Your task to perform on an android device: Look up "custom art" on Etsy Image 0: 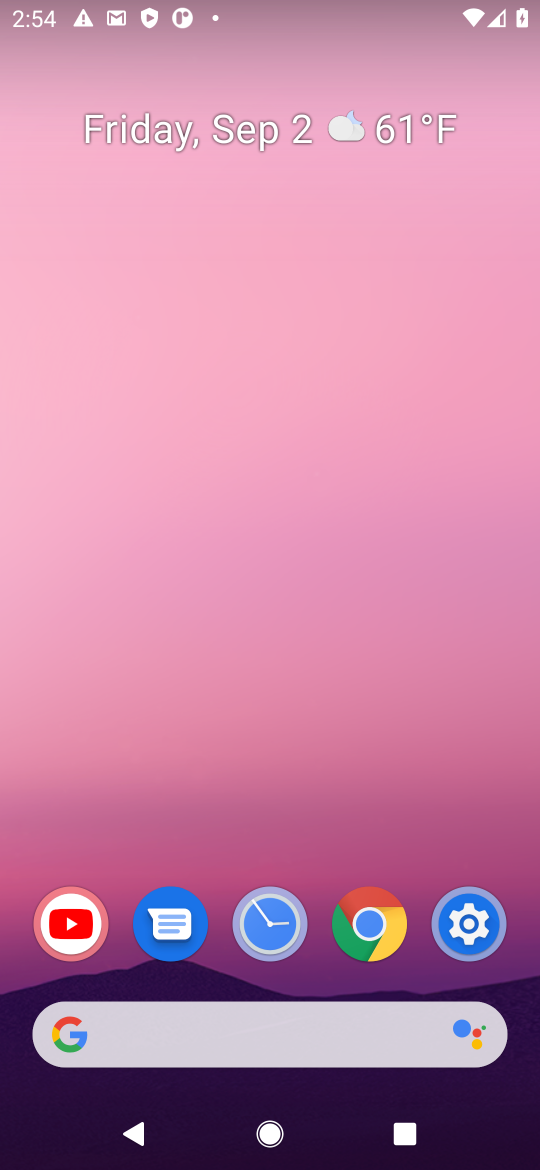
Step 0: press home button
Your task to perform on an android device: Look up "custom art" on Etsy Image 1: 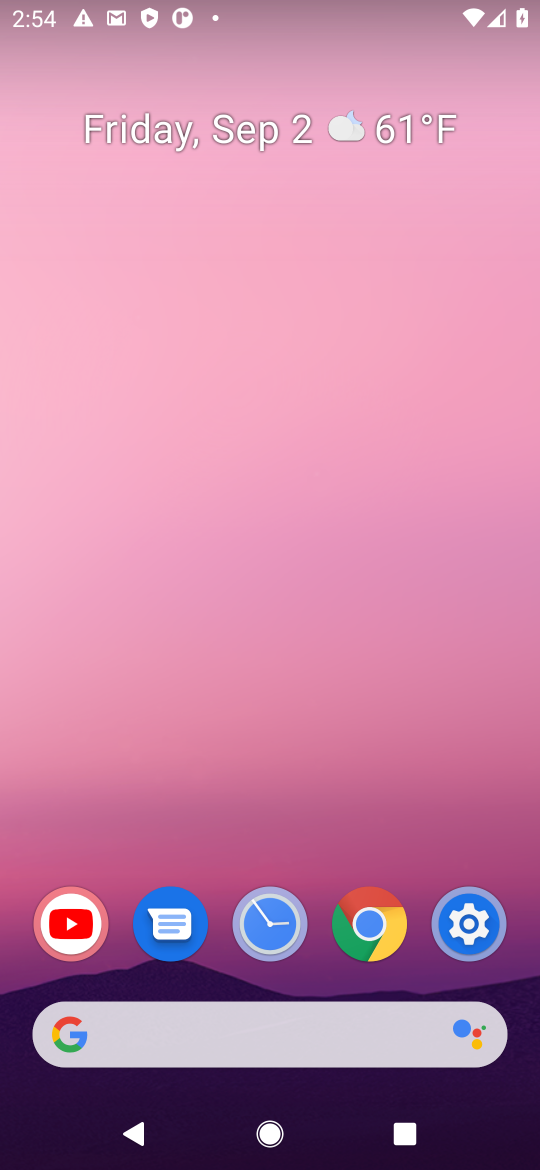
Step 1: click (340, 1042)
Your task to perform on an android device: Look up "custom art" on Etsy Image 2: 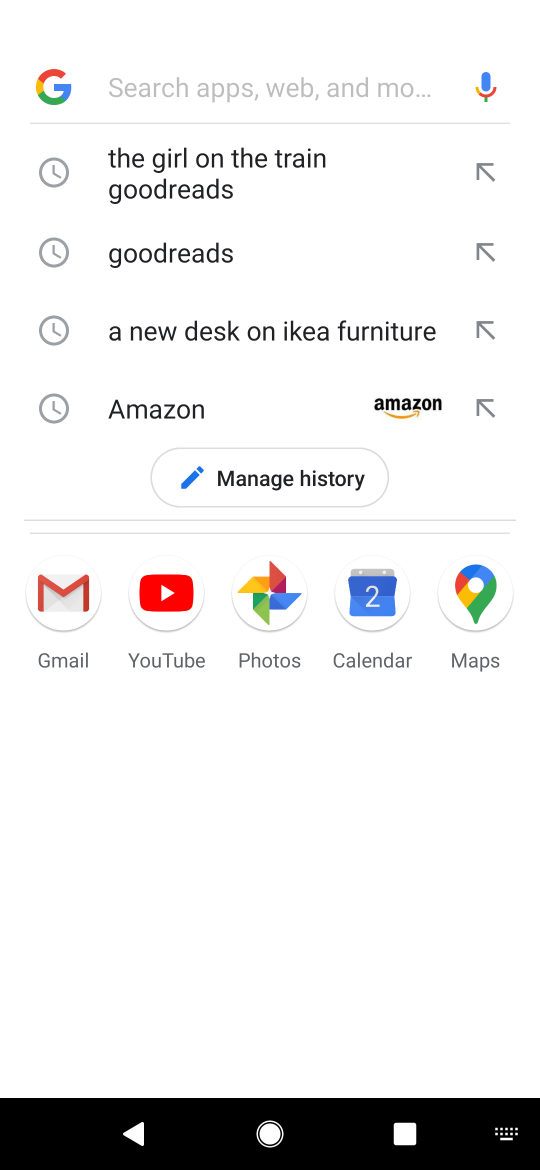
Step 2: press enter
Your task to perform on an android device: Look up "custom art" on Etsy Image 3: 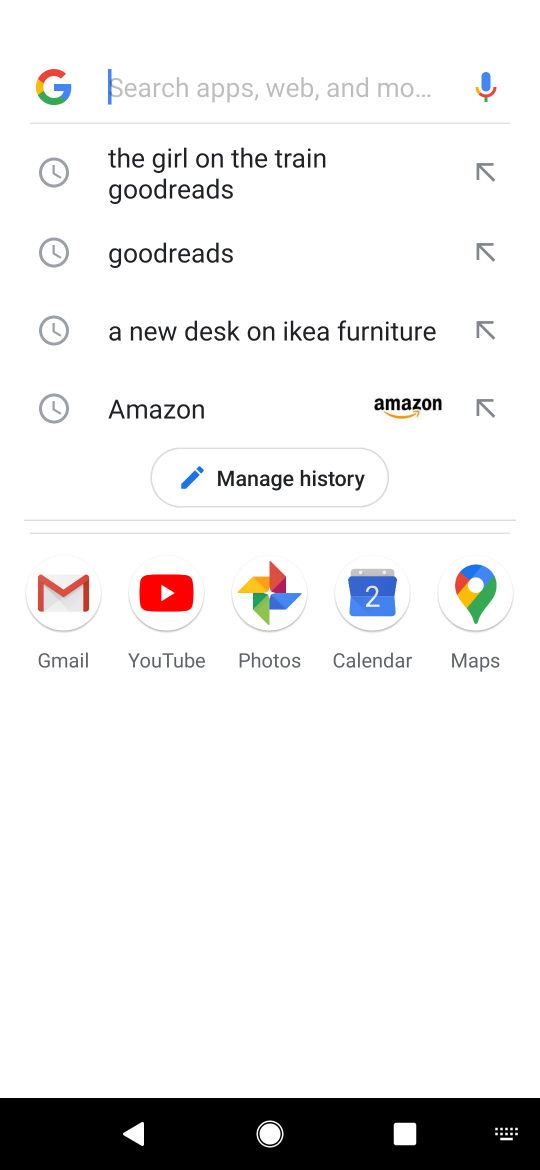
Step 3: type "etsy"
Your task to perform on an android device: Look up "custom art" on Etsy Image 4: 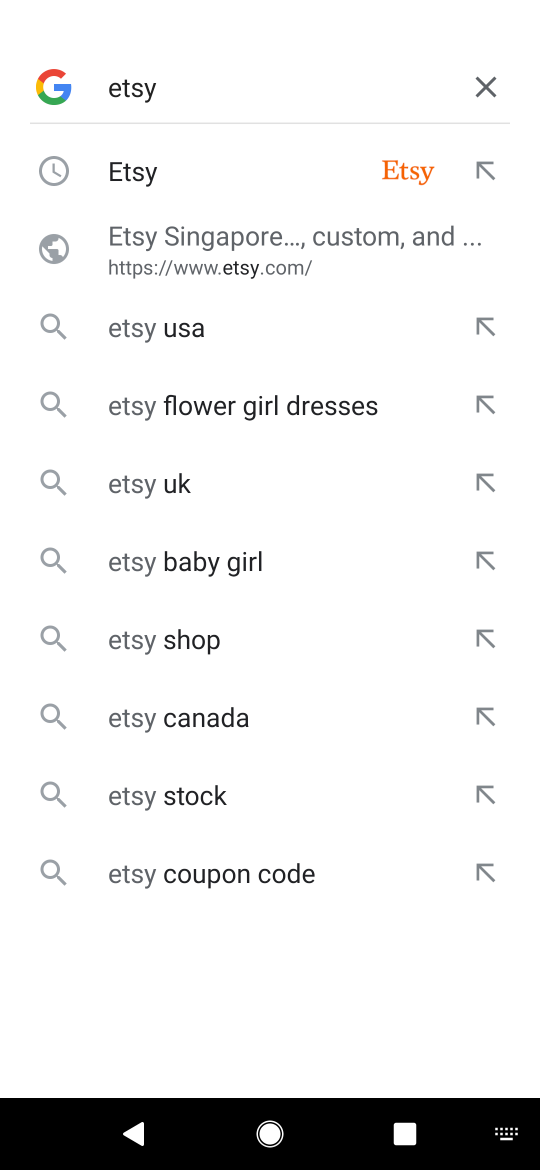
Step 4: click (216, 179)
Your task to perform on an android device: Look up "custom art" on Etsy Image 5: 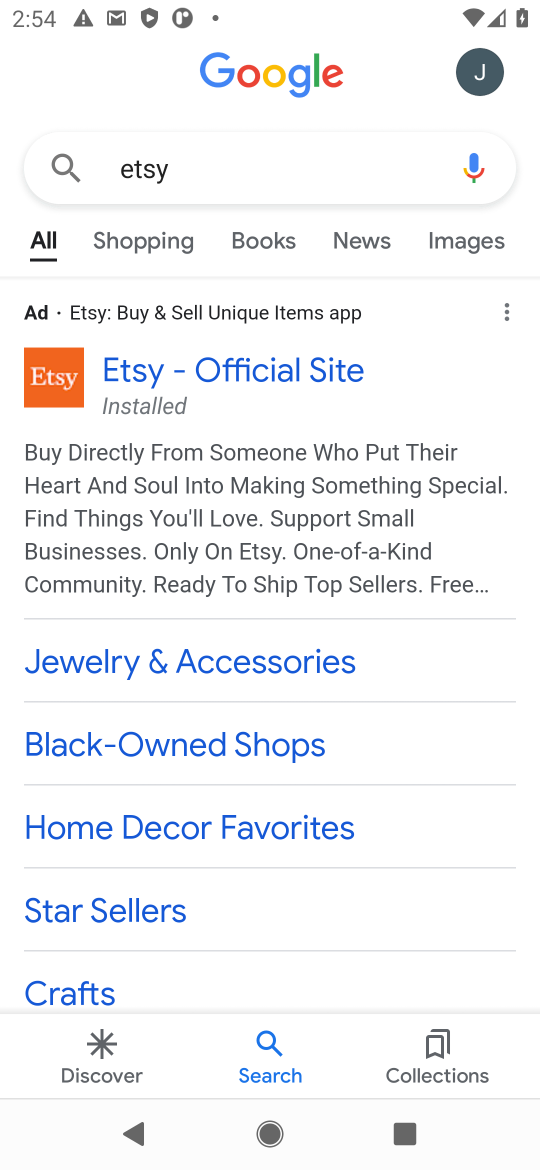
Step 5: click (286, 369)
Your task to perform on an android device: Look up "custom art" on Etsy Image 6: 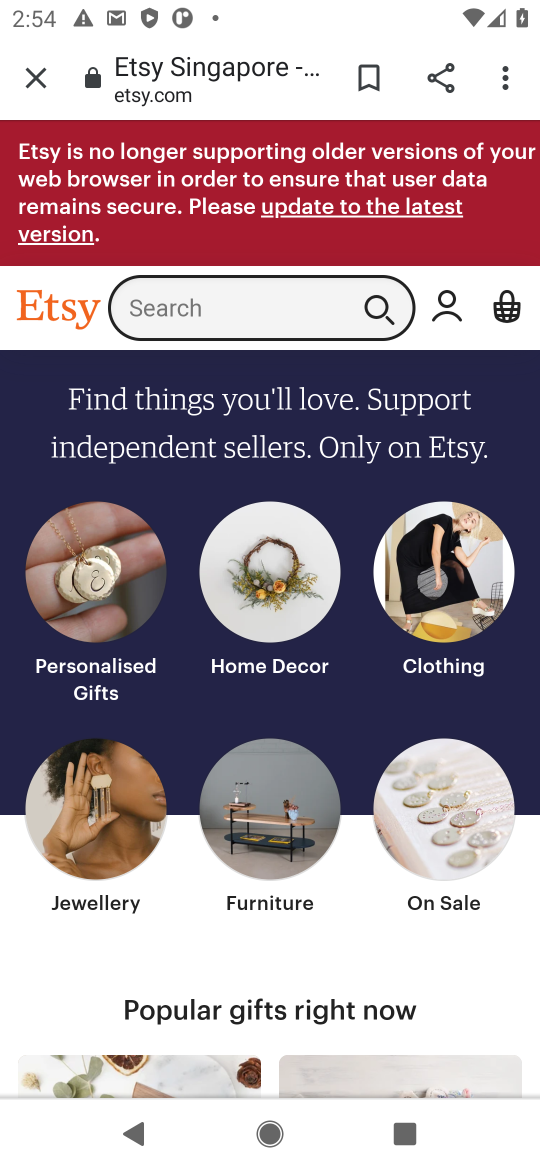
Step 6: click (268, 309)
Your task to perform on an android device: Look up "custom art" on Etsy Image 7: 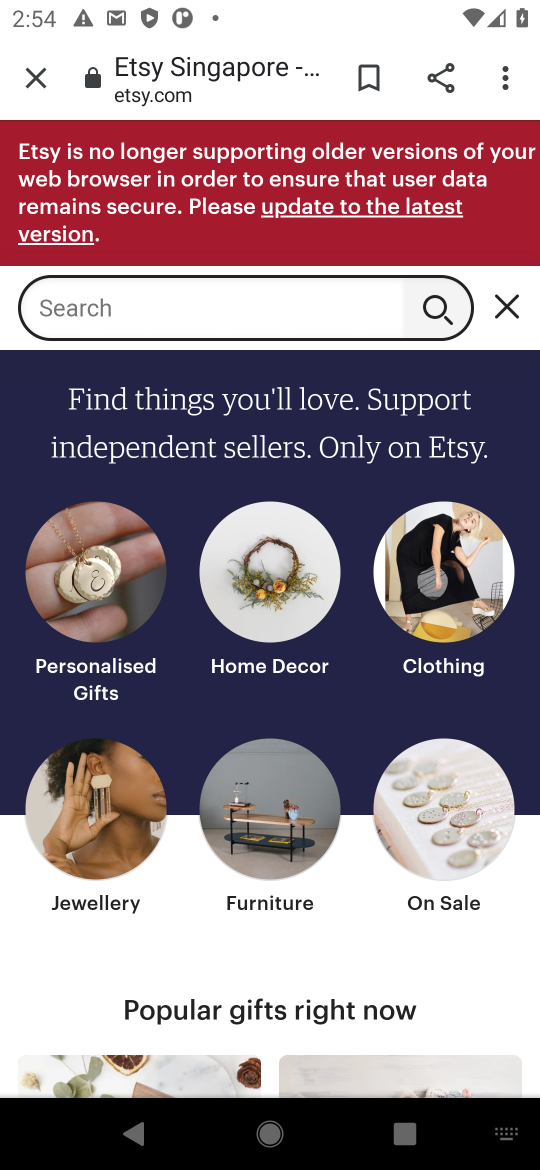
Step 7: type "custom art"
Your task to perform on an android device: Look up "custom art" on Etsy Image 8: 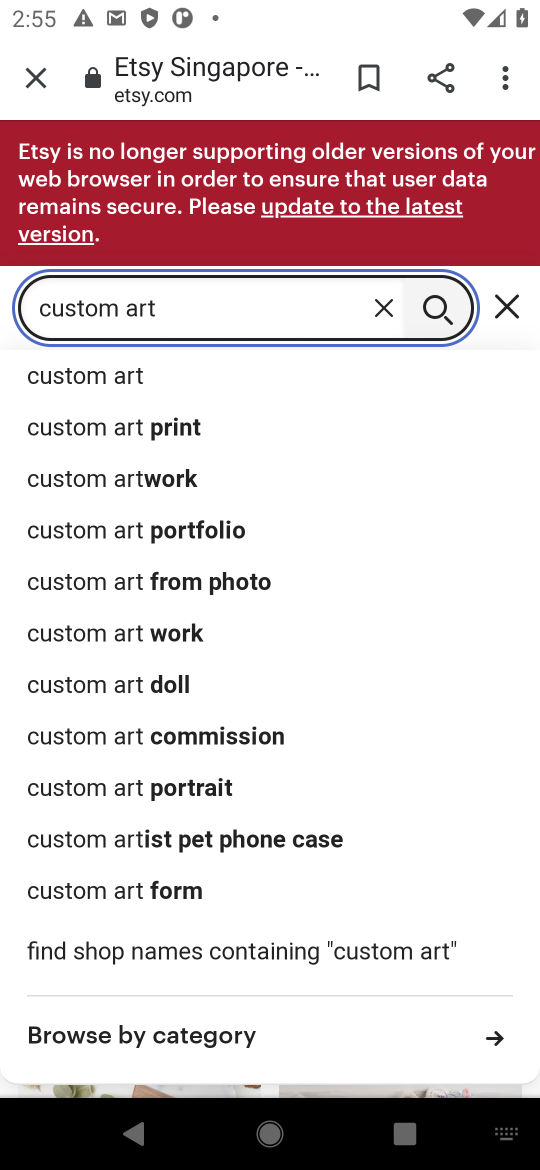
Step 8: click (128, 368)
Your task to perform on an android device: Look up "custom art" on Etsy Image 9: 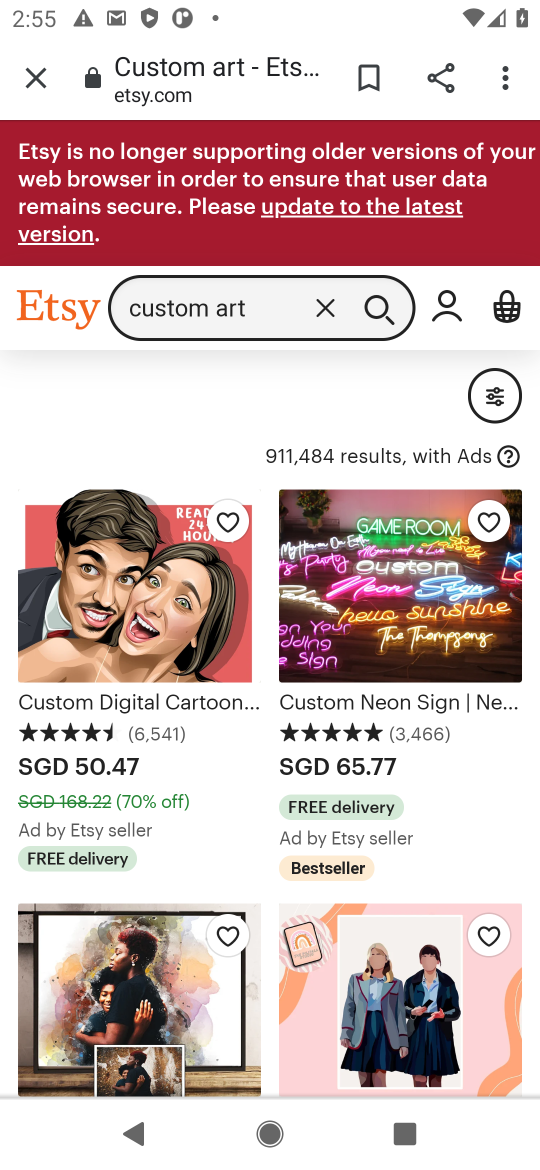
Step 9: task complete